Your task to perform on an android device: turn off location history Image 0: 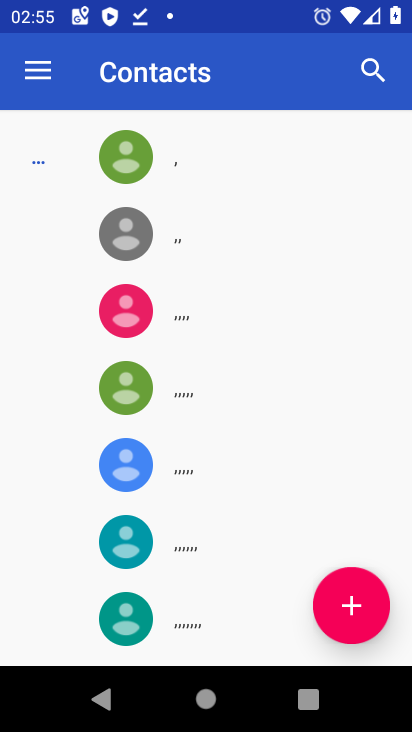
Step 0: press home button
Your task to perform on an android device: turn off location history Image 1: 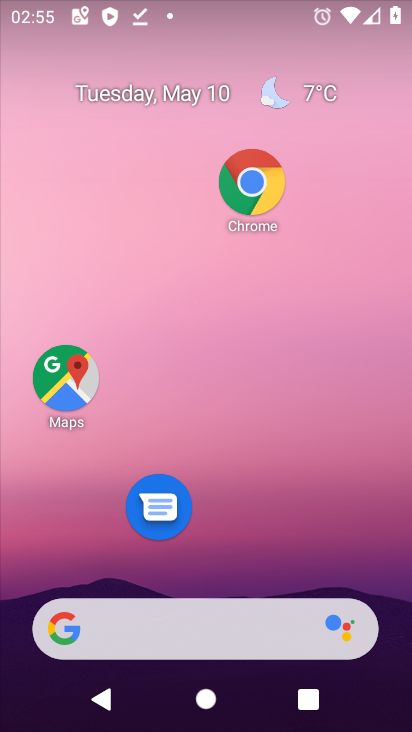
Step 1: click (290, 502)
Your task to perform on an android device: turn off location history Image 2: 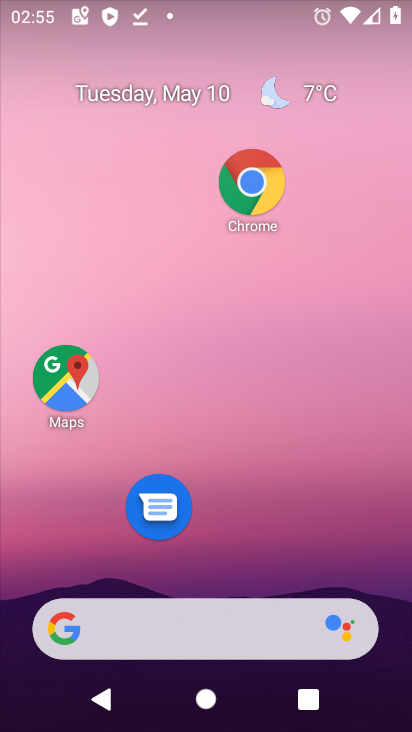
Step 2: drag from (290, 502) to (271, 121)
Your task to perform on an android device: turn off location history Image 3: 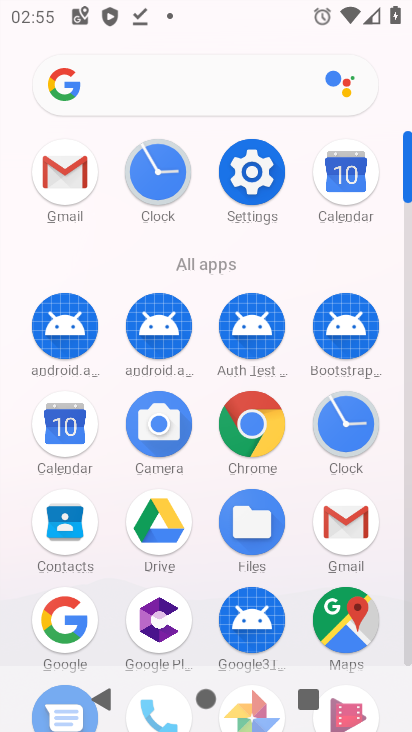
Step 3: click (276, 191)
Your task to perform on an android device: turn off location history Image 4: 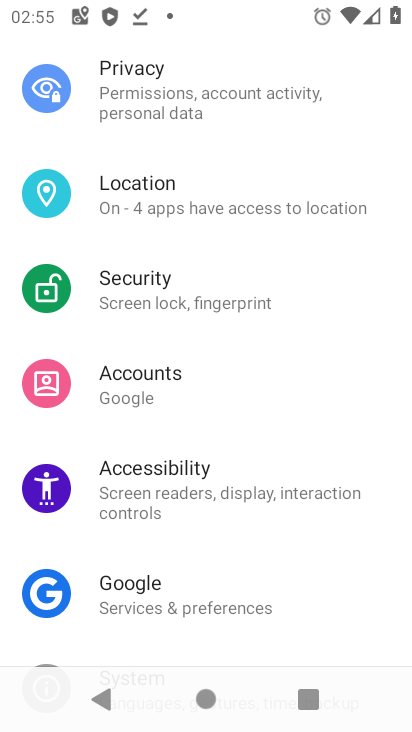
Step 4: drag from (193, 566) to (205, 223)
Your task to perform on an android device: turn off location history Image 5: 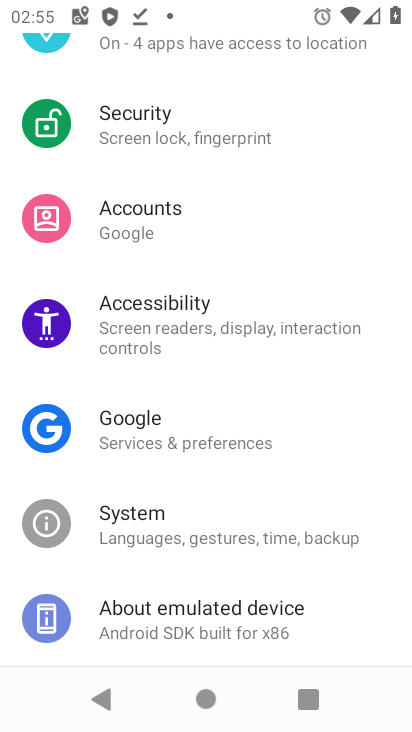
Step 5: drag from (227, 469) to (201, 327)
Your task to perform on an android device: turn off location history Image 6: 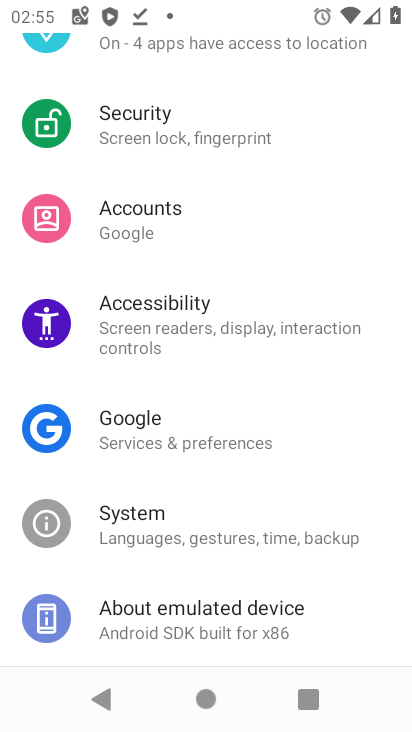
Step 6: drag from (175, 220) to (195, 534)
Your task to perform on an android device: turn off location history Image 7: 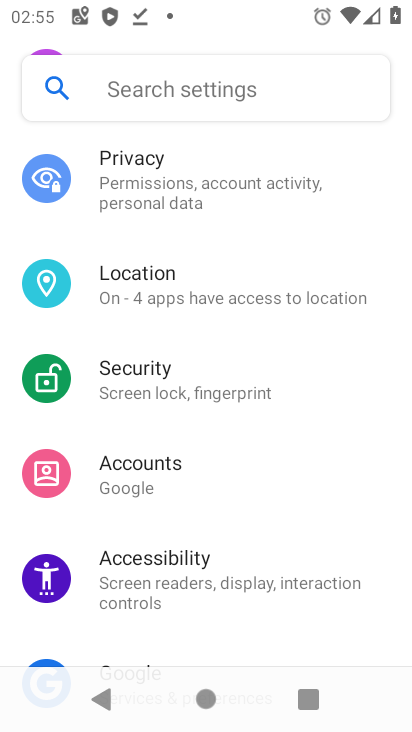
Step 7: click (169, 295)
Your task to perform on an android device: turn off location history Image 8: 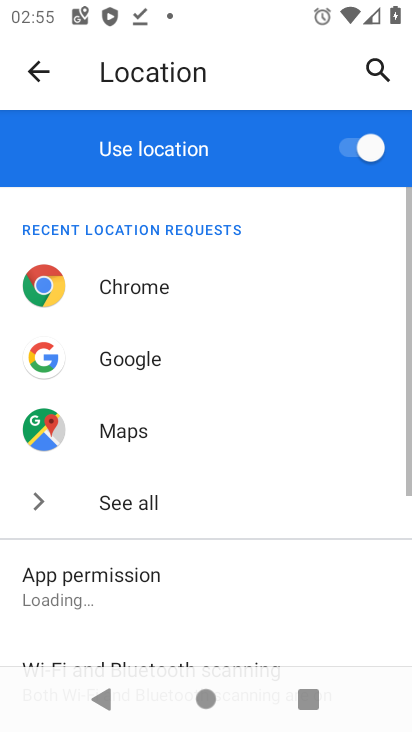
Step 8: drag from (171, 517) to (189, 254)
Your task to perform on an android device: turn off location history Image 9: 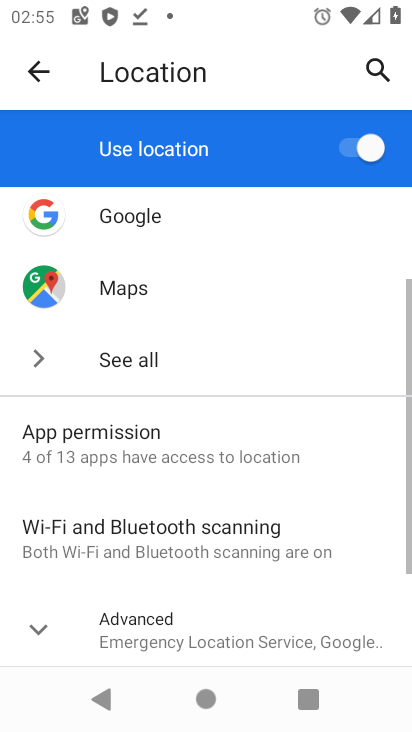
Step 9: drag from (222, 598) to (198, 340)
Your task to perform on an android device: turn off location history Image 10: 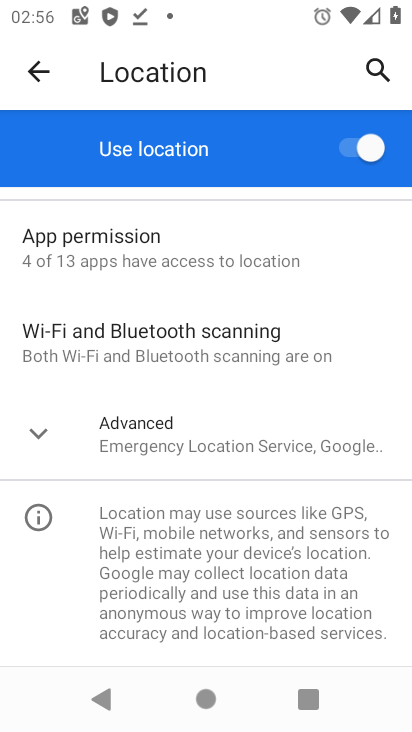
Step 10: click (184, 412)
Your task to perform on an android device: turn off location history Image 11: 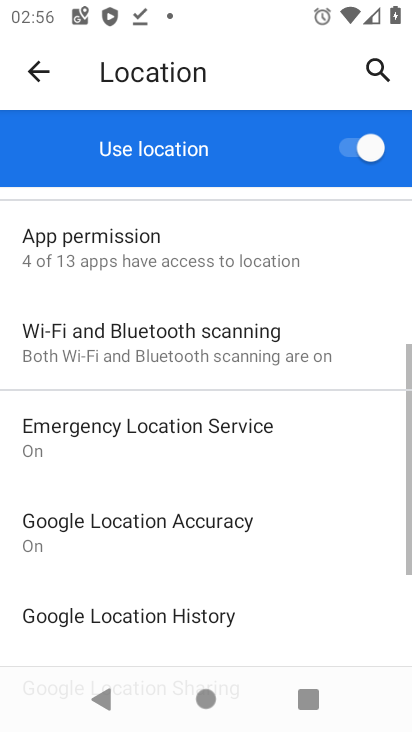
Step 11: drag from (204, 610) to (126, 320)
Your task to perform on an android device: turn off location history Image 12: 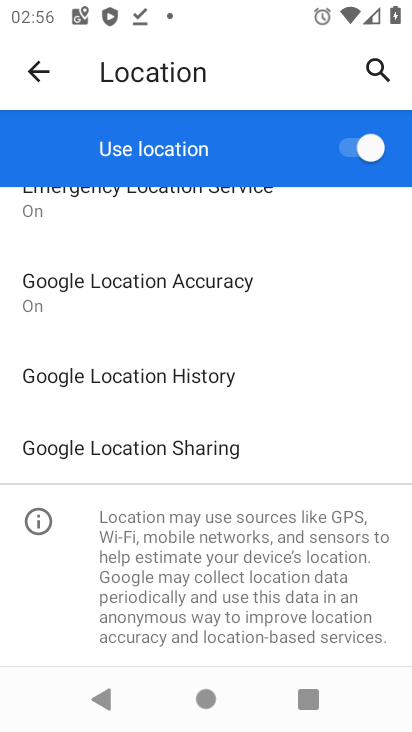
Step 12: click (133, 400)
Your task to perform on an android device: turn off location history Image 13: 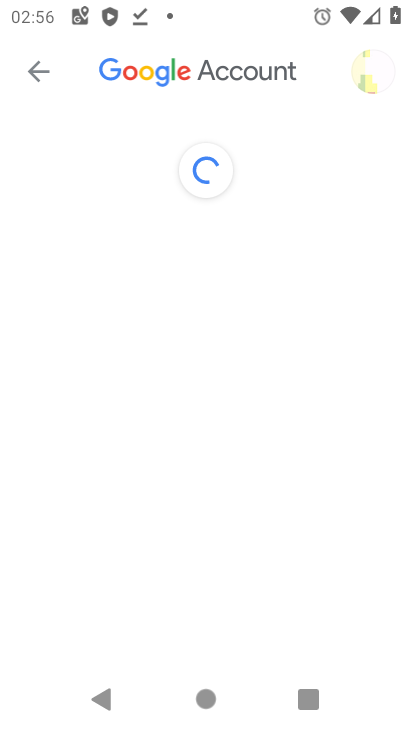
Step 13: task complete